Your task to perform on an android device: Go to Android settings Image 0: 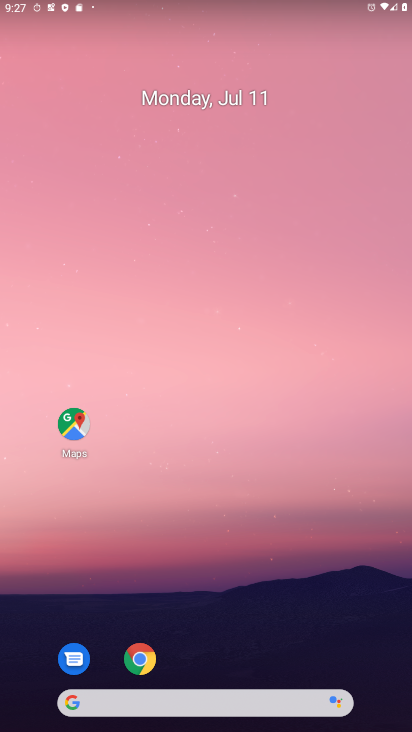
Step 0: drag from (219, 561) to (271, 107)
Your task to perform on an android device: Go to Android settings Image 1: 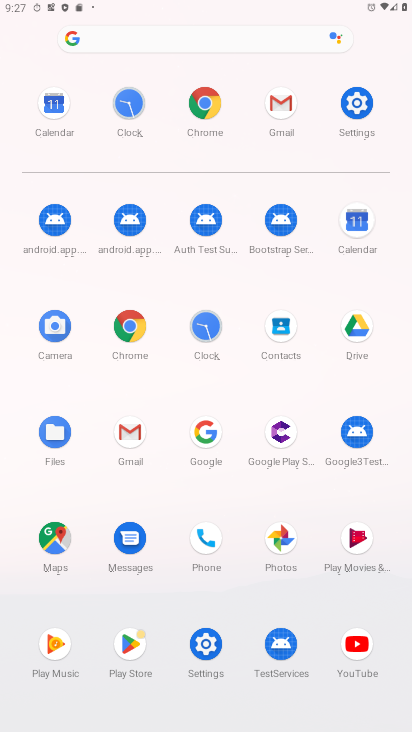
Step 1: click (353, 101)
Your task to perform on an android device: Go to Android settings Image 2: 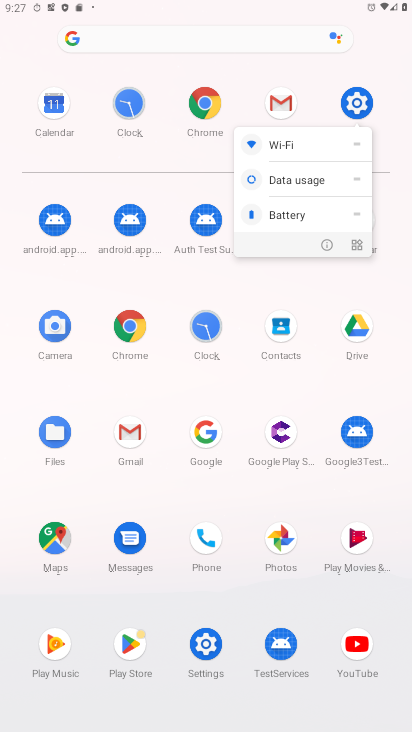
Step 2: click (320, 241)
Your task to perform on an android device: Go to Android settings Image 3: 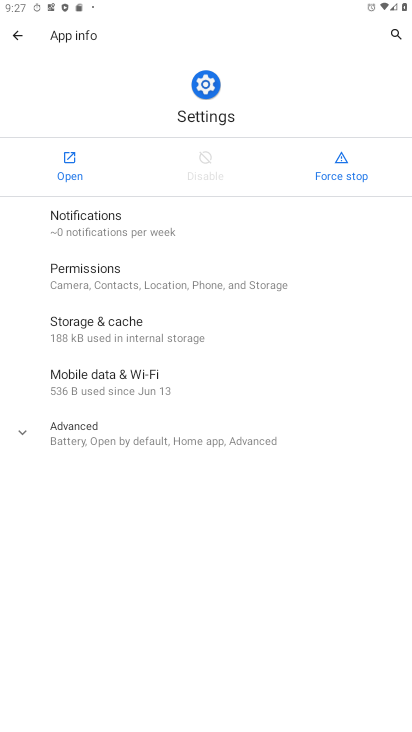
Step 3: click (73, 174)
Your task to perform on an android device: Go to Android settings Image 4: 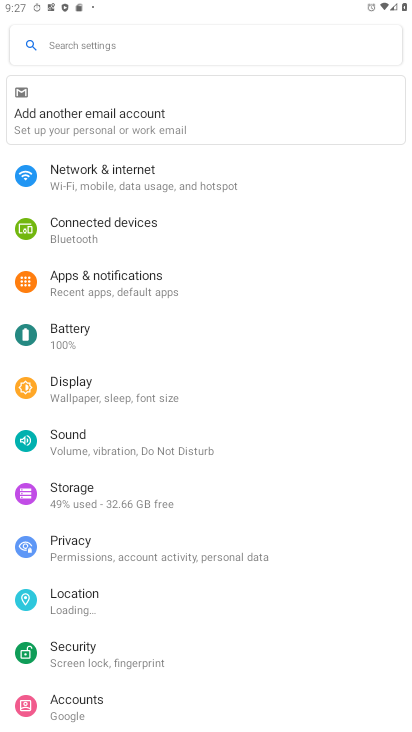
Step 4: drag from (200, 575) to (299, 87)
Your task to perform on an android device: Go to Android settings Image 5: 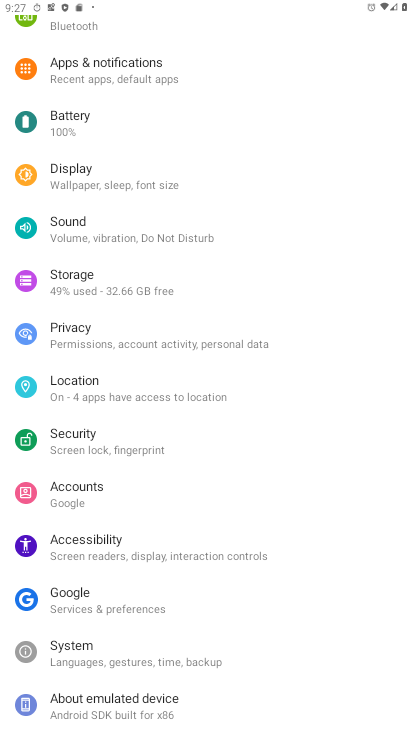
Step 5: drag from (203, 651) to (342, 120)
Your task to perform on an android device: Go to Android settings Image 6: 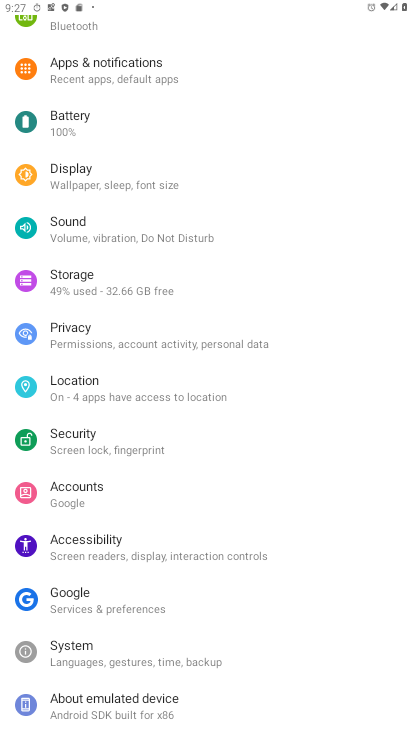
Step 6: click (175, 710)
Your task to perform on an android device: Go to Android settings Image 7: 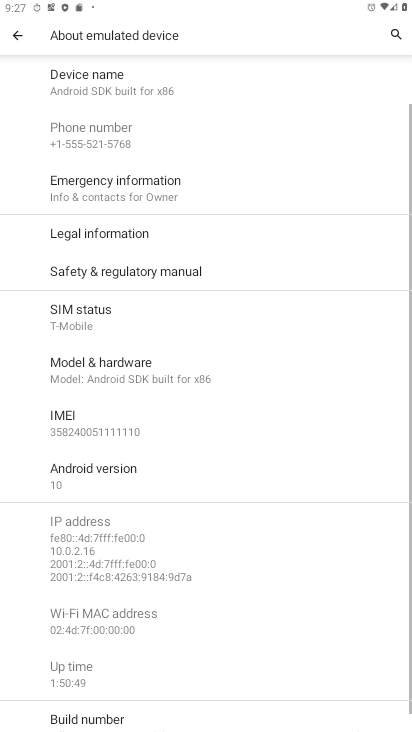
Step 7: drag from (173, 706) to (261, 116)
Your task to perform on an android device: Go to Android settings Image 8: 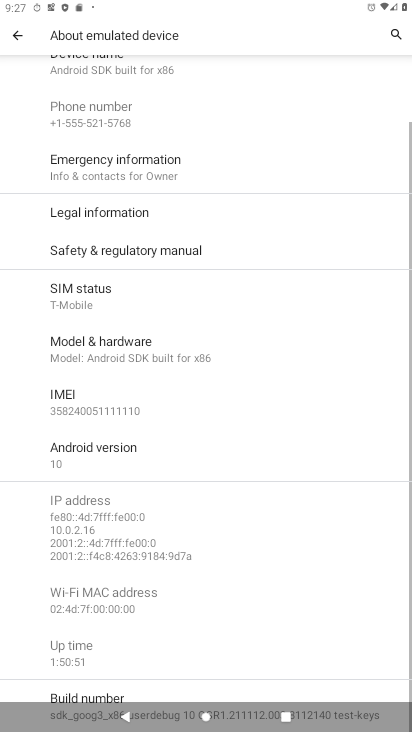
Step 8: click (131, 452)
Your task to perform on an android device: Go to Android settings Image 9: 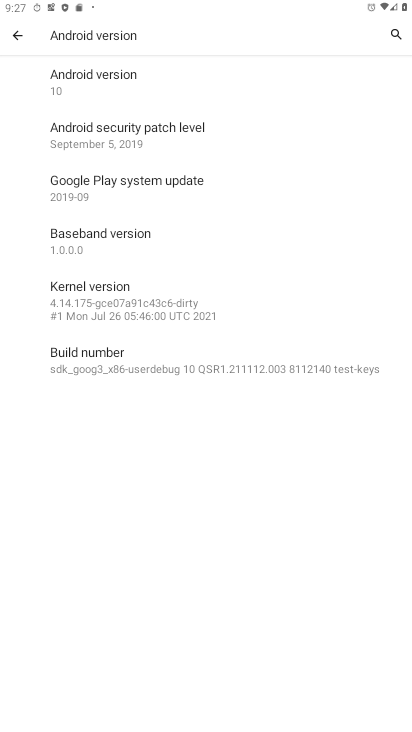
Step 9: drag from (174, 534) to (299, 151)
Your task to perform on an android device: Go to Android settings Image 10: 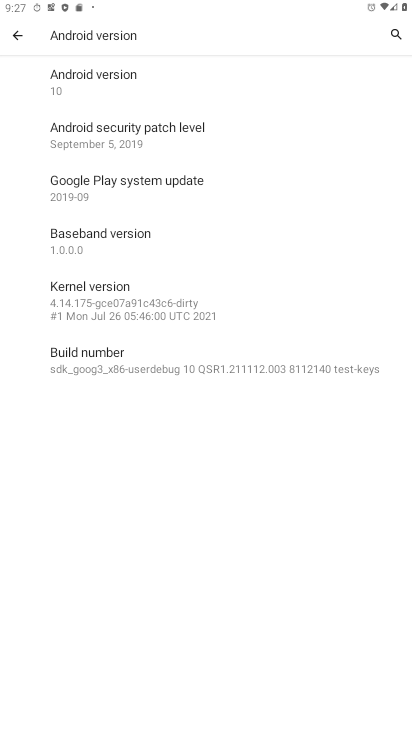
Step 10: click (180, 62)
Your task to perform on an android device: Go to Android settings Image 11: 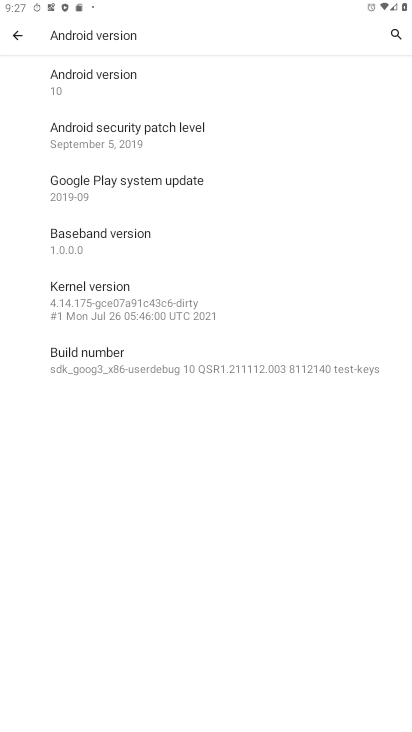
Step 11: task complete